Your task to perform on an android device: see sites visited before in the chrome app Image 0: 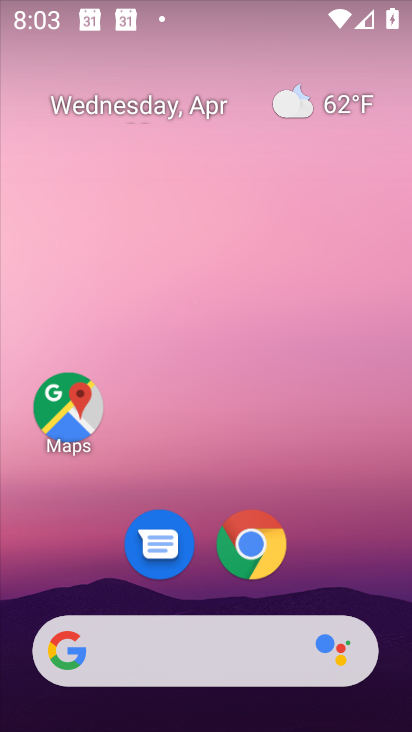
Step 0: click (255, 554)
Your task to perform on an android device: see sites visited before in the chrome app Image 1: 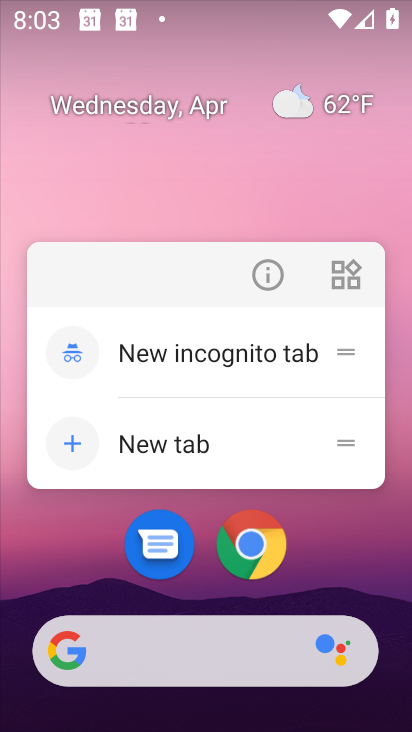
Step 1: click (262, 524)
Your task to perform on an android device: see sites visited before in the chrome app Image 2: 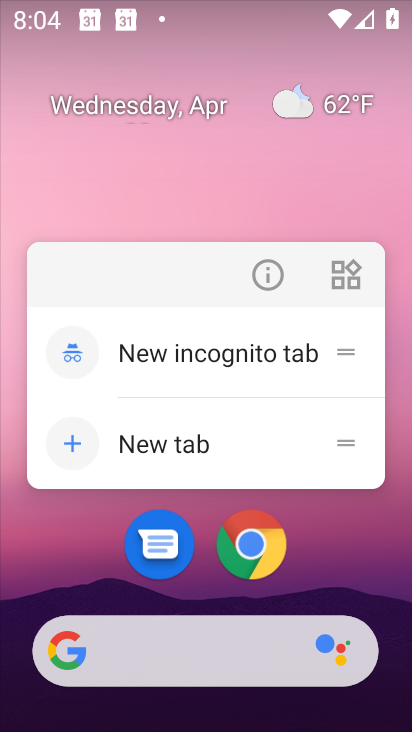
Step 2: click (253, 558)
Your task to perform on an android device: see sites visited before in the chrome app Image 3: 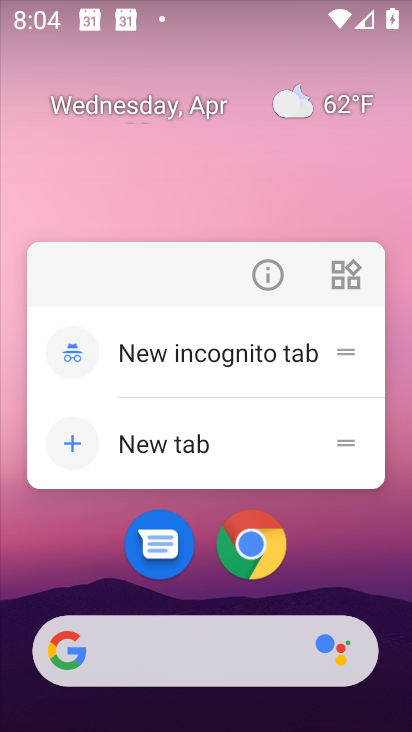
Step 3: click (253, 565)
Your task to perform on an android device: see sites visited before in the chrome app Image 4: 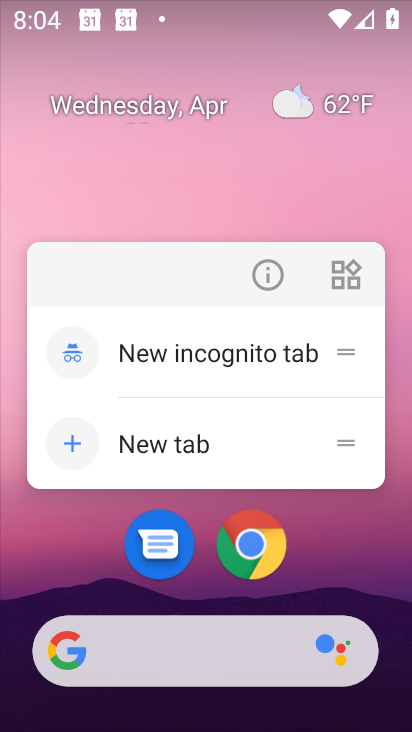
Step 4: click (253, 565)
Your task to perform on an android device: see sites visited before in the chrome app Image 5: 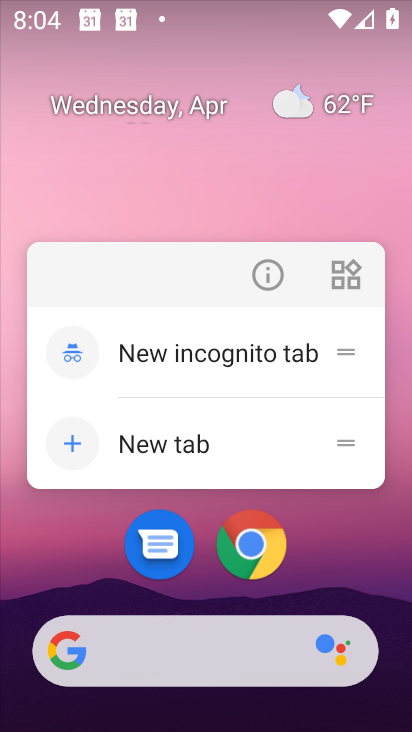
Step 5: click (254, 547)
Your task to perform on an android device: see sites visited before in the chrome app Image 6: 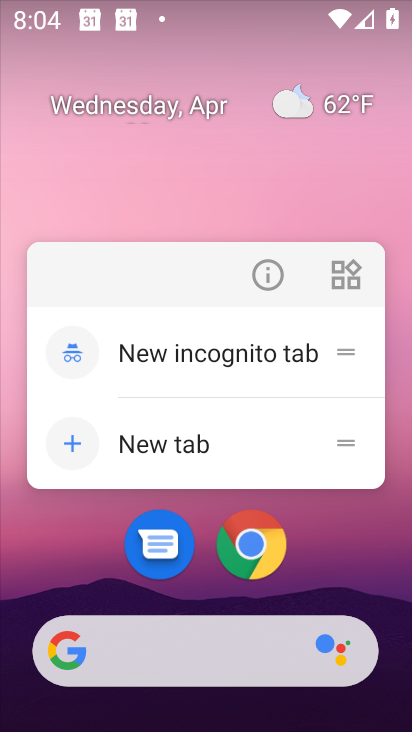
Step 6: click (260, 544)
Your task to perform on an android device: see sites visited before in the chrome app Image 7: 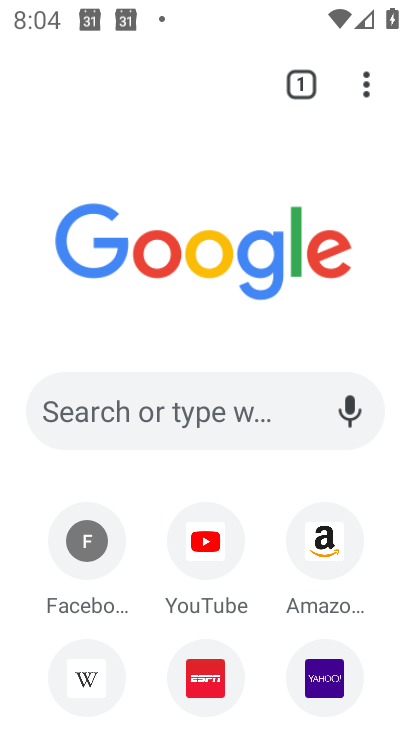
Step 7: task complete